Your task to perform on an android device: Go to notification settings Image 0: 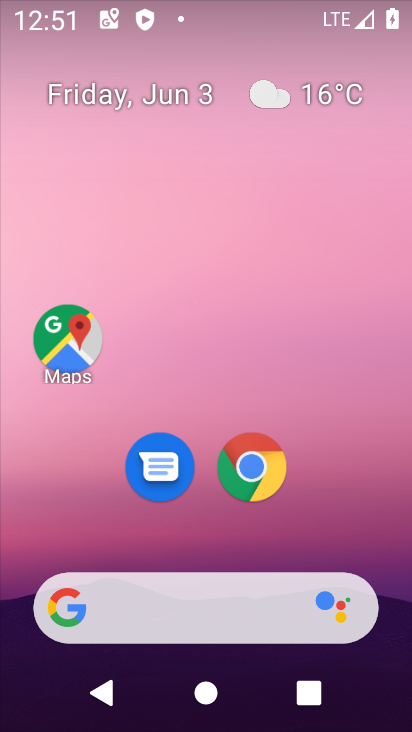
Step 0: drag from (125, 541) to (205, 131)
Your task to perform on an android device: Go to notification settings Image 1: 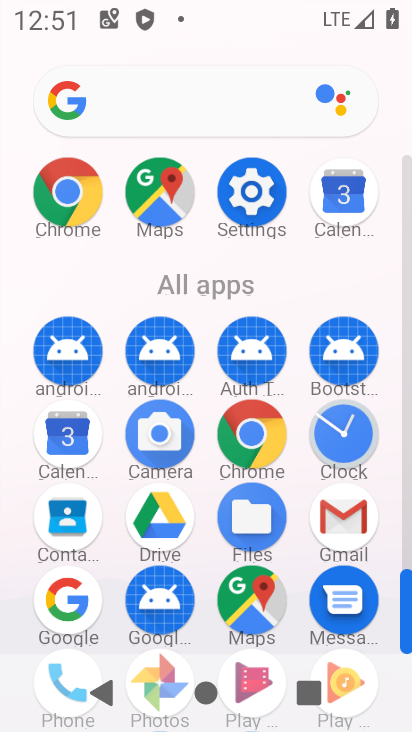
Step 1: drag from (131, 633) to (197, 326)
Your task to perform on an android device: Go to notification settings Image 2: 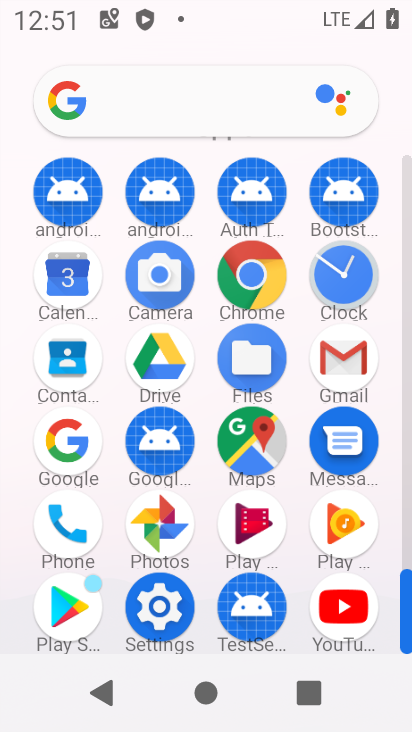
Step 2: click (158, 608)
Your task to perform on an android device: Go to notification settings Image 3: 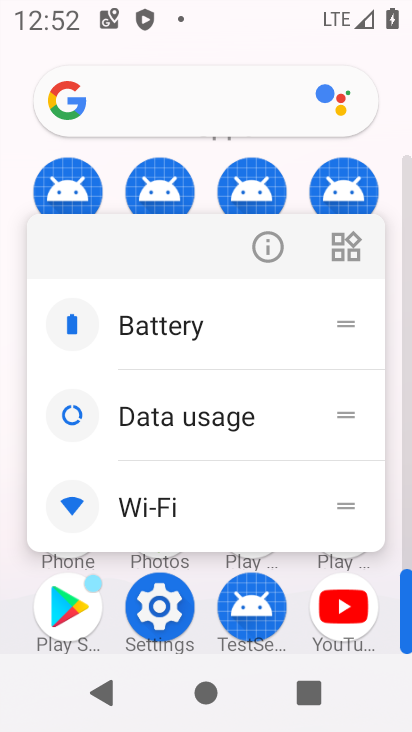
Step 3: click (157, 608)
Your task to perform on an android device: Go to notification settings Image 4: 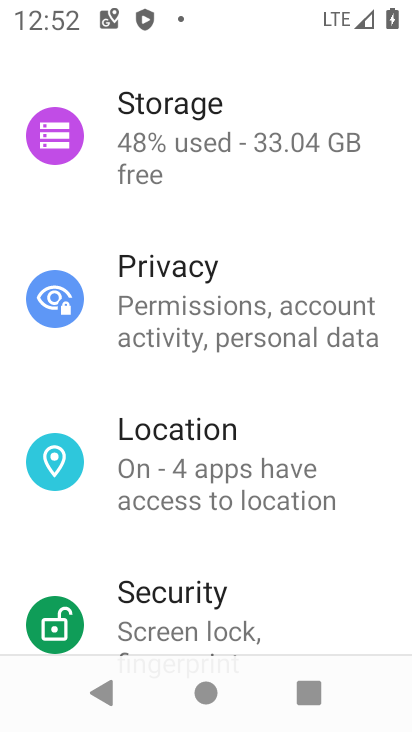
Step 4: drag from (222, 549) to (293, 214)
Your task to perform on an android device: Go to notification settings Image 5: 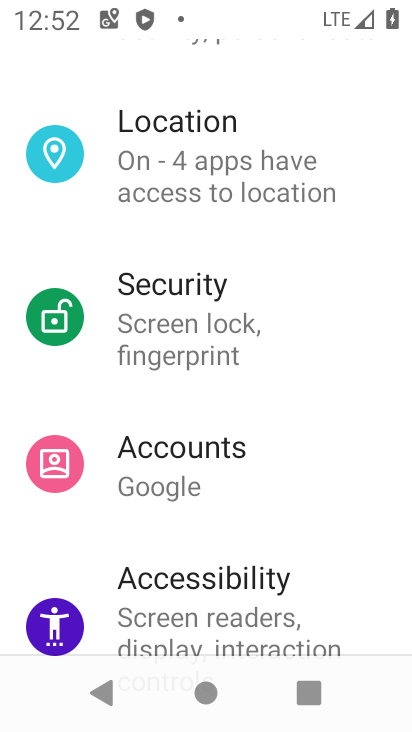
Step 5: drag from (214, 217) to (203, 598)
Your task to perform on an android device: Go to notification settings Image 6: 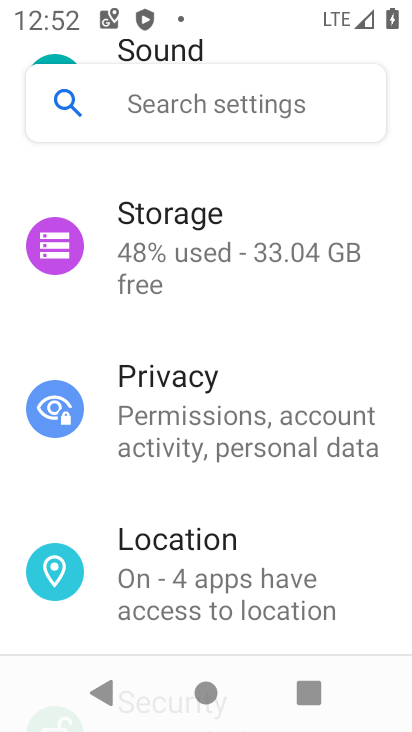
Step 6: drag from (222, 181) to (211, 610)
Your task to perform on an android device: Go to notification settings Image 7: 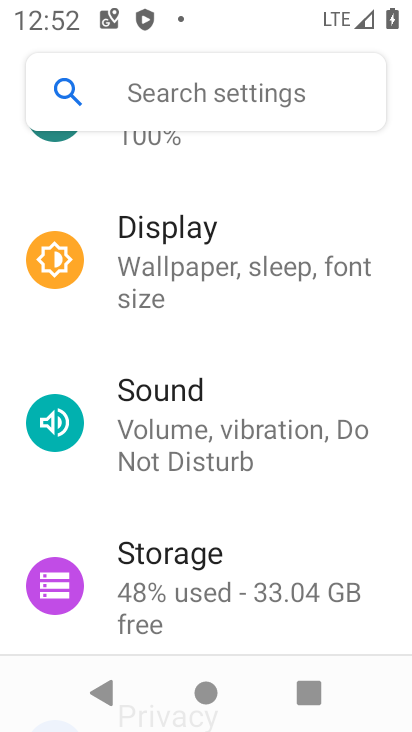
Step 7: drag from (218, 217) to (210, 540)
Your task to perform on an android device: Go to notification settings Image 8: 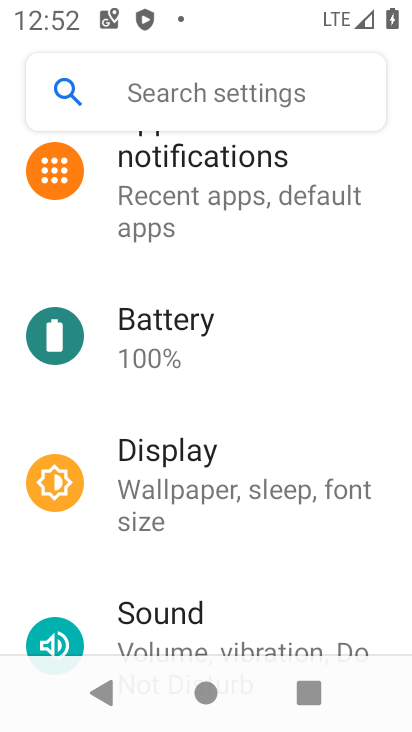
Step 8: click (224, 219)
Your task to perform on an android device: Go to notification settings Image 9: 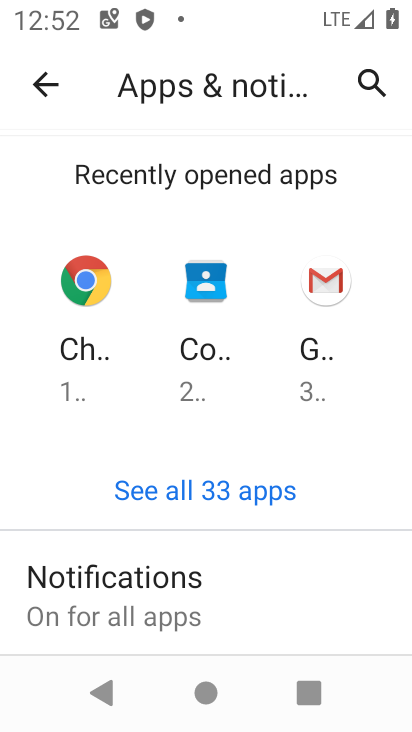
Step 9: task complete